Your task to perform on an android device: choose inbox layout in the gmail app Image 0: 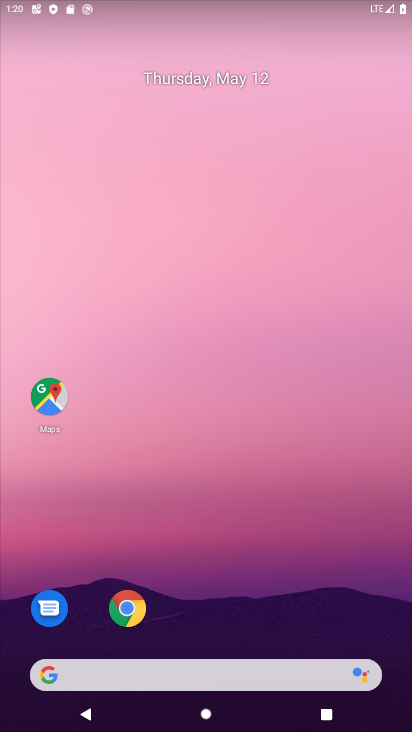
Step 0: drag from (324, 593) to (190, 8)
Your task to perform on an android device: choose inbox layout in the gmail app Image 1: 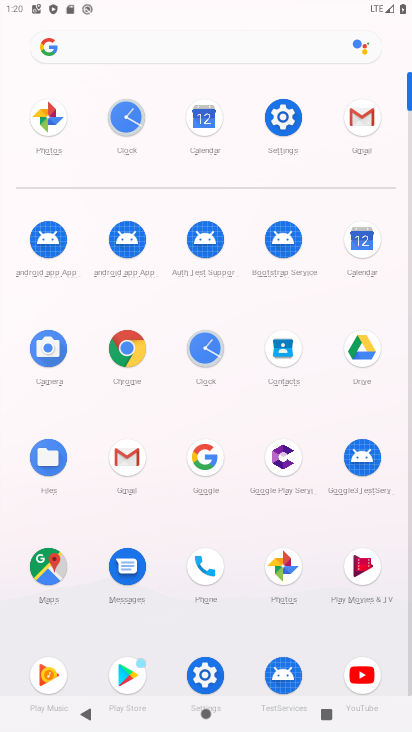
Step 1: click (367, 160)
Your task to perform on an android device: choose inbox layout in the gmail app Image 2: 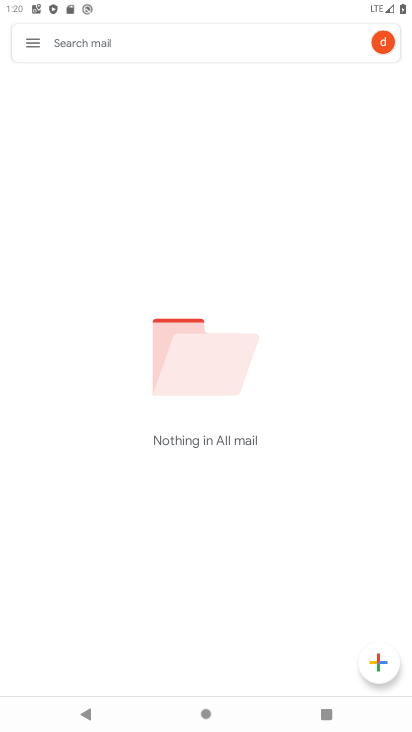
Step 2: click (23, 43)
Your task to perform on an android device: choose inbox layout in the gmail app Image 3: 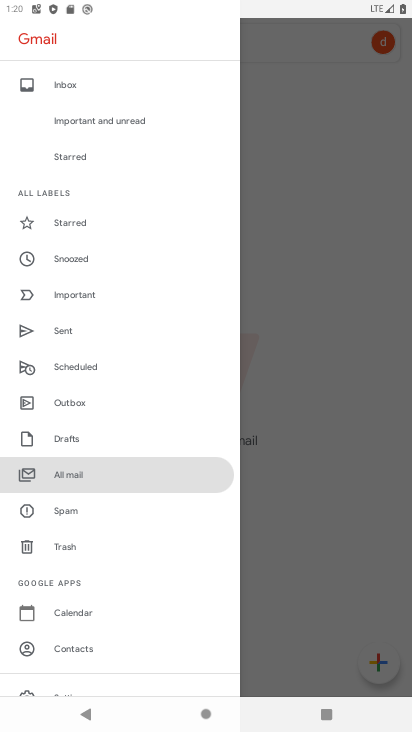
Step 3: drag from (171, 653) to (195, 192)
Your task to perform on an android device: choose inbox layout in the gmail app Image 4: 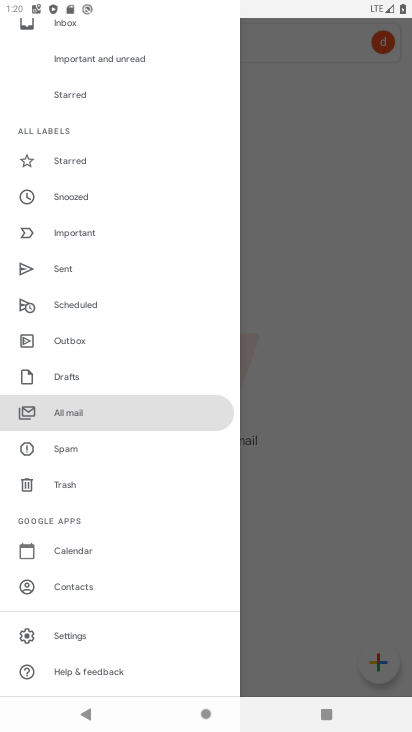
Step 4: click (69, 636)
Your task to perform on an android device: choose inbox layout in the gmail app Image 5: 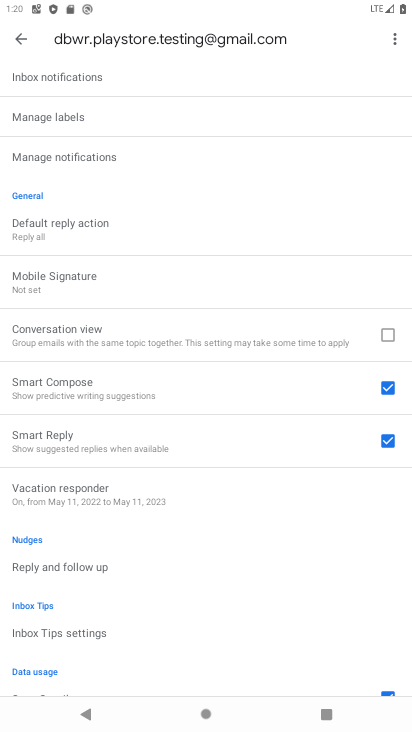
Step 5: drag from (238, 226) to (263, 710)
Your task to perform on an android device: choose inbox layout in the gmail app Image 6: 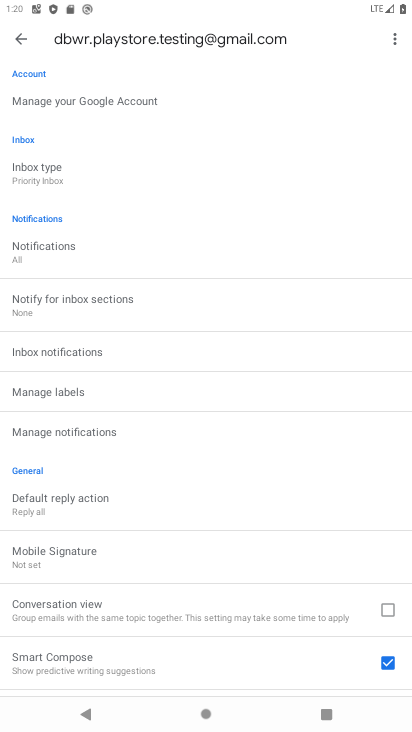
Step 6: click (44, 179)
Your task to perform on an android device: choose inbox layout in the gmail app Image 7: 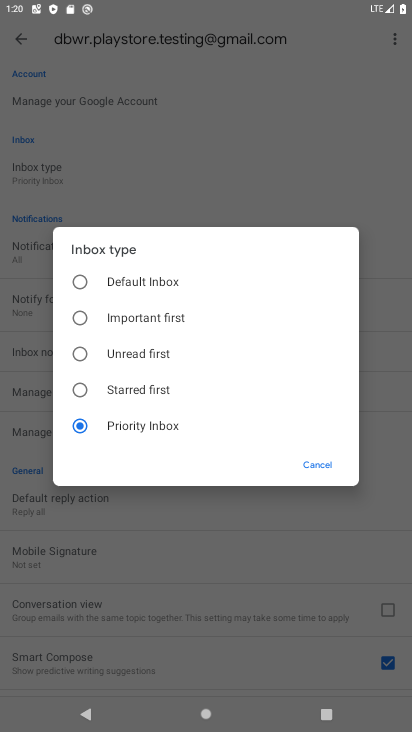
Step 7: click (77, 355)
Your task to perform on an android device: choose inbox layout in the gmail app Image 8: 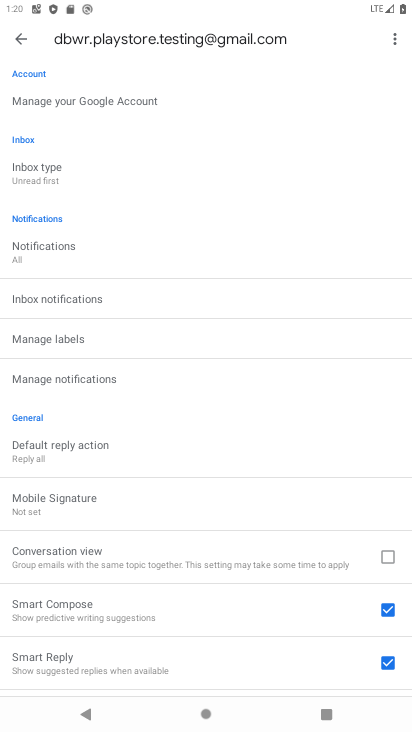
Step 8: task complete